Your task to perform on an android device: toggle sleep mode Image 0: 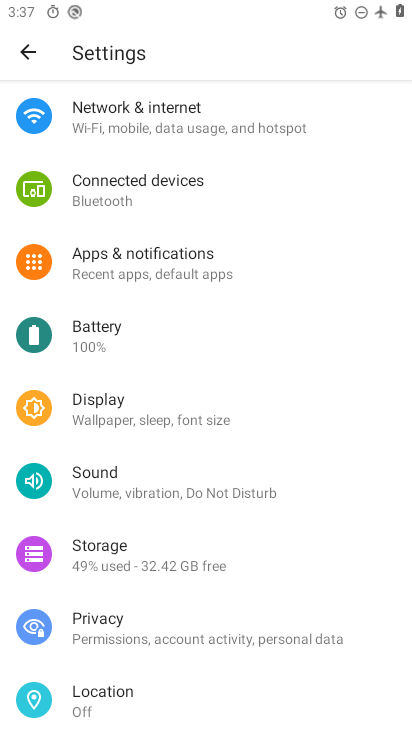
Step 0: click (158, 414)
Your task to perform on an android device: toggle sleep mode Image 1: 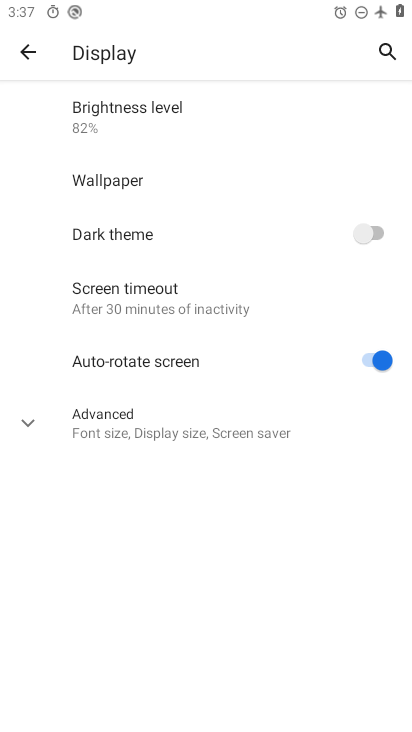
Step 1: click (124, 302)
Your task to perform on an android device: toggle sleep mode Image 2: 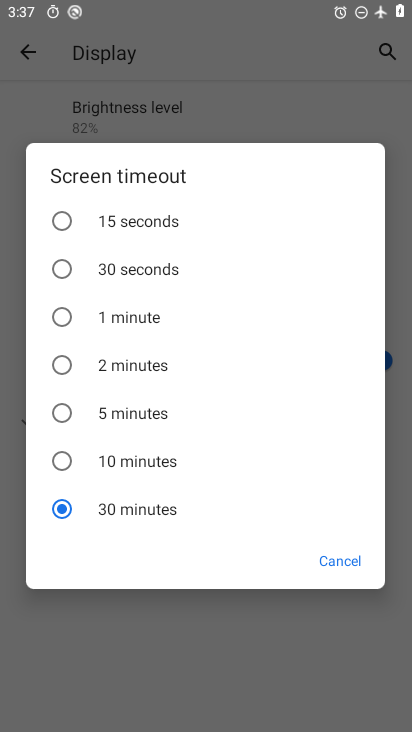
Step 2: click (121, 275)
Your task to perform on an android device: toggle sleep mode Image 3: 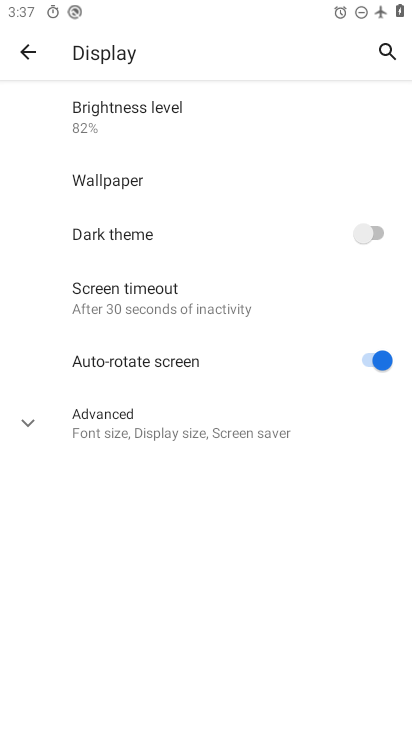
Step 3: task complete